Your task to perform on an android device: change the clock style Image 0: 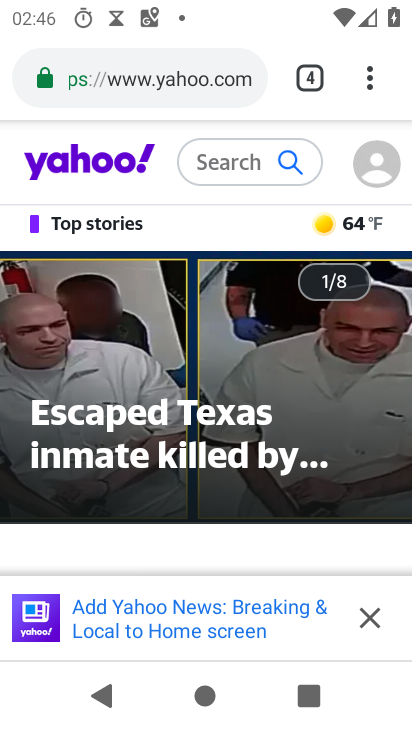
Step 0: press home button
Your task to perform on an android device: change the clock style Image 1: 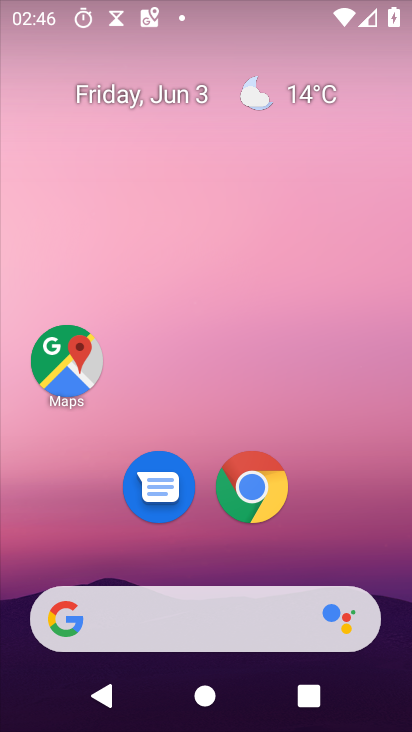
Step 1: drag from (362, 494) to (6, 21)
Your task to perform on an android device: change the clock style Image 2: 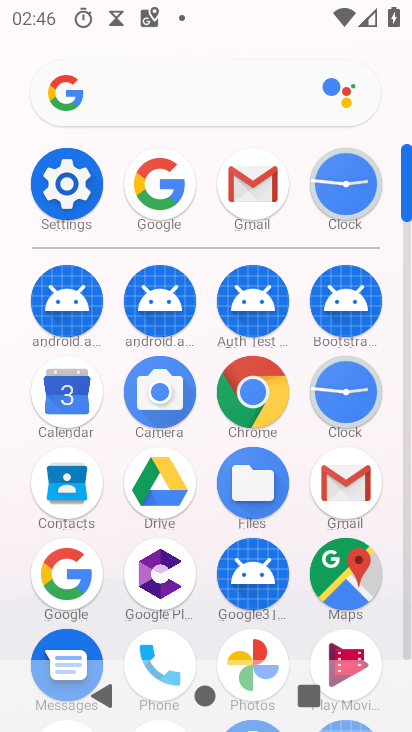
Step 2: click (346, 151)
Your task to perform on an android device: change the clock style Image 3: 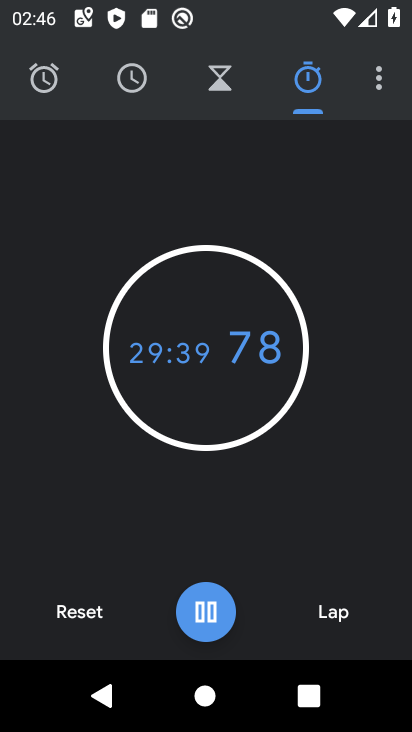
Step 3: click (374, 91)
Your task to perform on an android device: change the clock style Image 4: 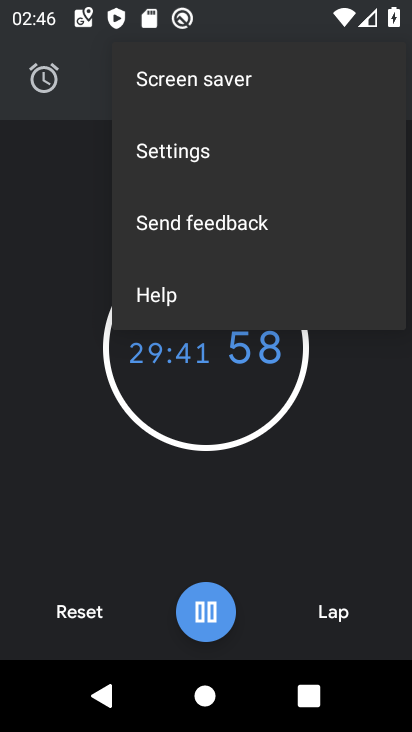
Step 4: click (239, 143)
Your task to perform on an android device: change the clock style Image 5: 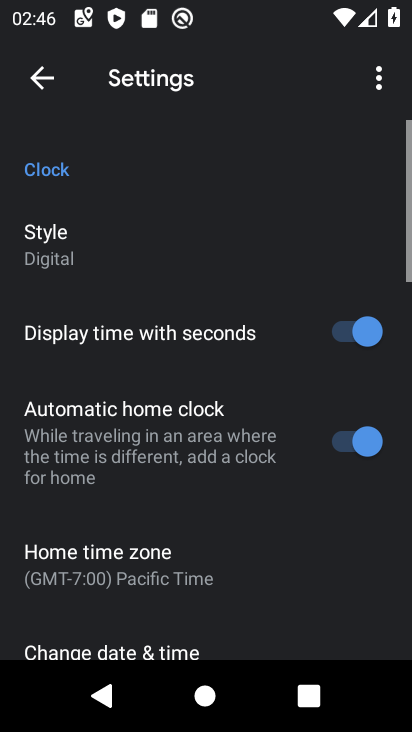
Step 5: click (123, 259)
Your task to perform on an android device: change the clock style Image 6: 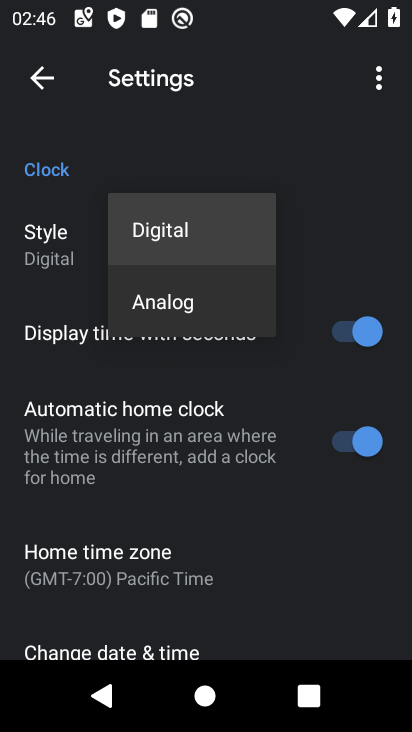
Step 6: click (186, 279)
Your task to perform on an android device: change the clock style Image 7: 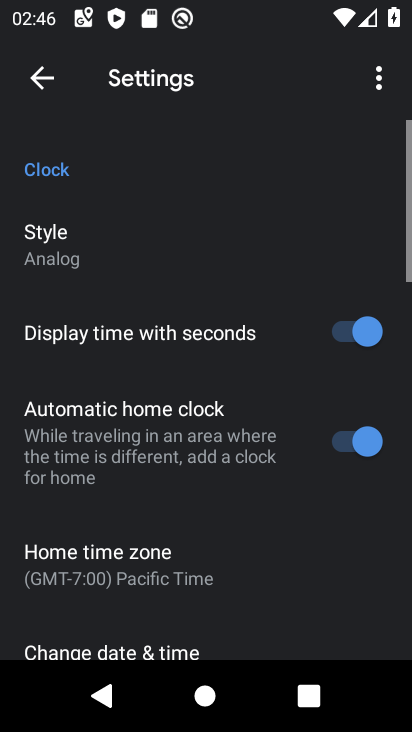
Step 7: task complete